Your task to perform on an android device: Open Google Maps and go to "Timeline" Image 0: 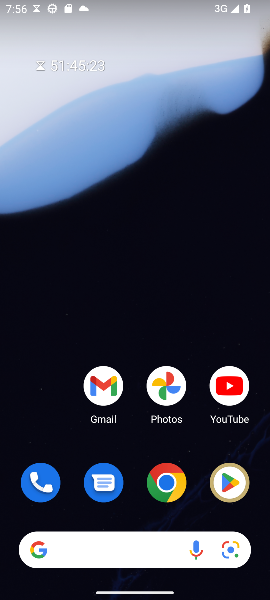
Step 0: drag from (143, 467) to (152, 0)
Your task to perform on an android device: Open Google Maps and go to "Timeline" Image 1: 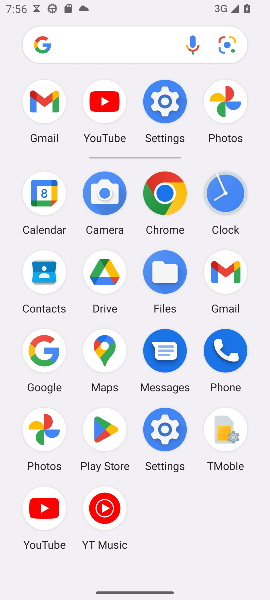
Step 1: click (106, 350)
Your task to perform on an android device: Open Google Maps and go to "Timeline" Image 2: 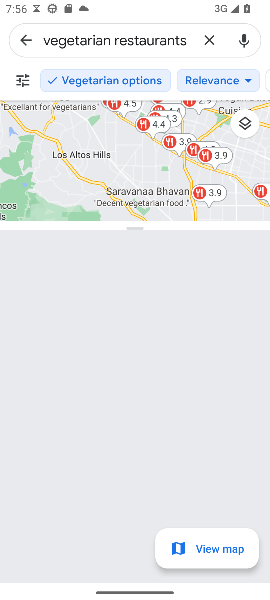
Step 2: click (29, 44)
Your task to perform on an android device: Open Google Maps and go to "Timeline" Image 3: 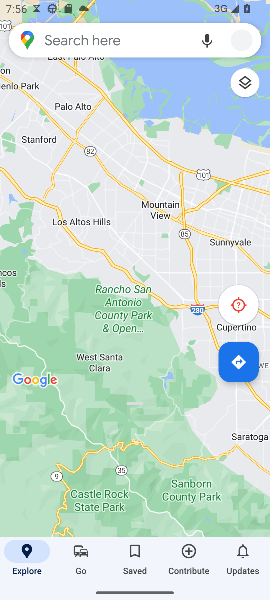
Step 3: drag from (131, 231) to (135, 416)
Your task to perform on an android device: Open Google Maps and go to "Timeline" Image 4: 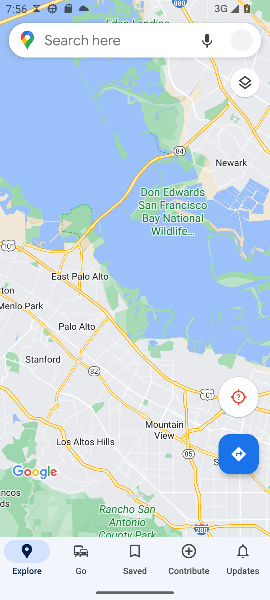
Step 4: click (16, 44)
Your task to perform on an android device: Open Google Maps and go to "Timeline" Image 5: 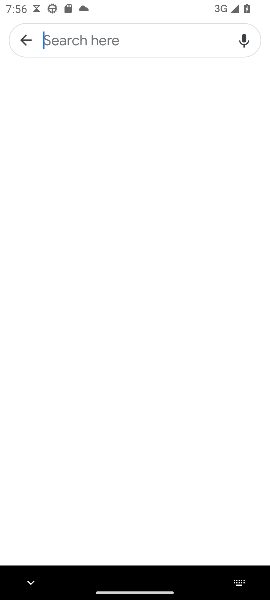
Step 5: click (23, 42)
Your task to perform on an android device: Open Google Maps and go to "Timeline" Image 6: 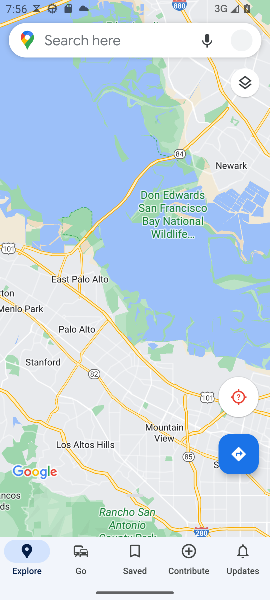
Step 6: click (241, 36)
Your task to perform on an android device: Open Google Maps and go to "Timeline" Image 7: 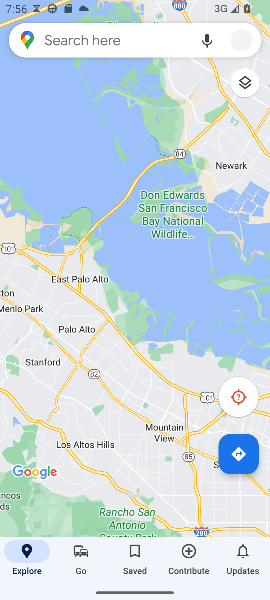
Step 7: click (240, 43)
Your task to perform on an android device: Open Google Maps and go to "Timeline" Image 8: 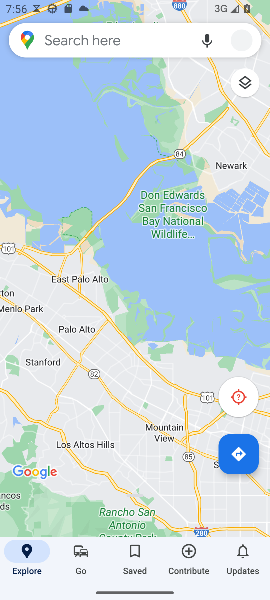
Step 8: press back button
Your task to perform on an android device: Open Google Maps and go to "Timeline" Image 9: 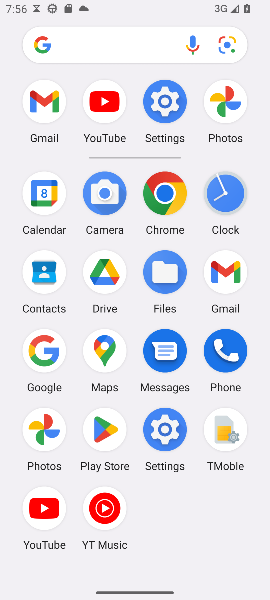
Step 9: click (96, 362)
Your task to perform on an android device: Open Google Maps and go to "Timeline" Image 10: 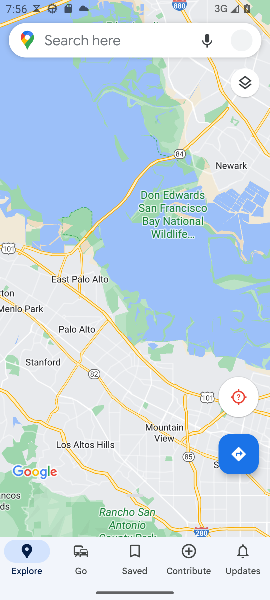
Step 10: click (239, 41)
Your task to perform on an android device: Open Google Maps and go to "Timeline" Image 11: 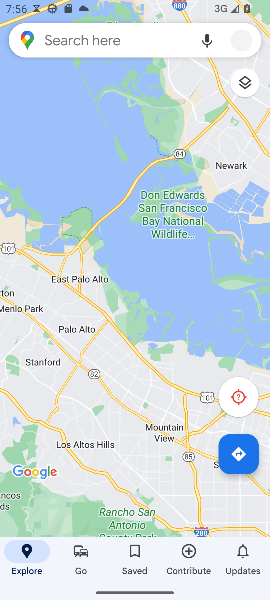
Step 11: task complete